Your task to perform on an android device: turn off priority inbox in the gmail app Image 0: 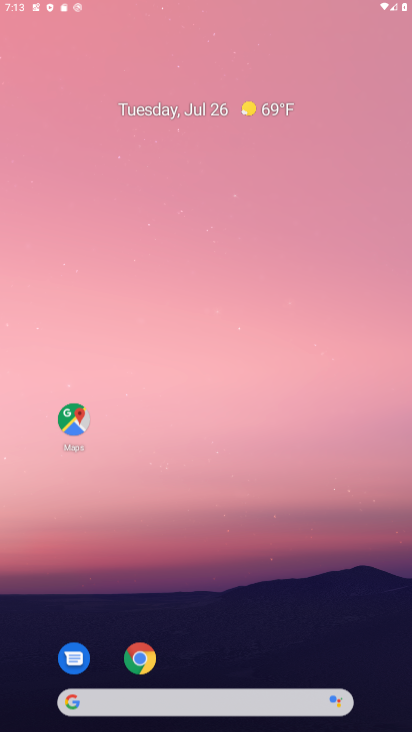
Step 0: press home button
Your task to perform on an android device: turn off priority inbox in the gmail app Image 1: 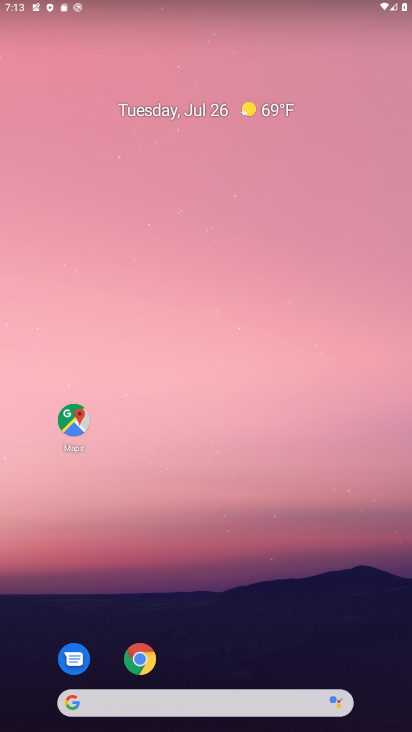
Step 1: drag from (256, 668) to (228, 113)
Your task to perform on an android device: turn off priority inbox in the gmail app Image 2: 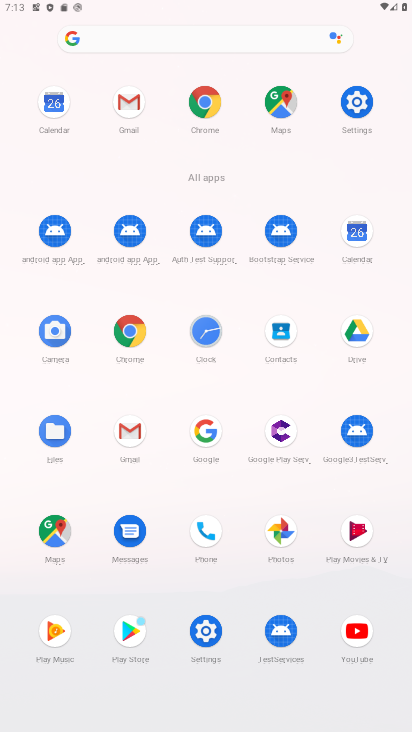
Step 2: click (120, 108)
Your task to perform on an android device: turn off priority inbox in the gmail app Image 3: 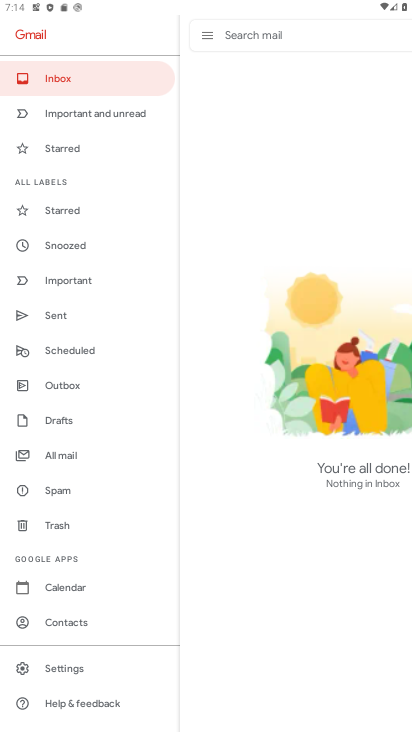
Step 3: click (79, 666)
Your task to perform on an android device: turn off priority inbox in the gmail app Image 4: 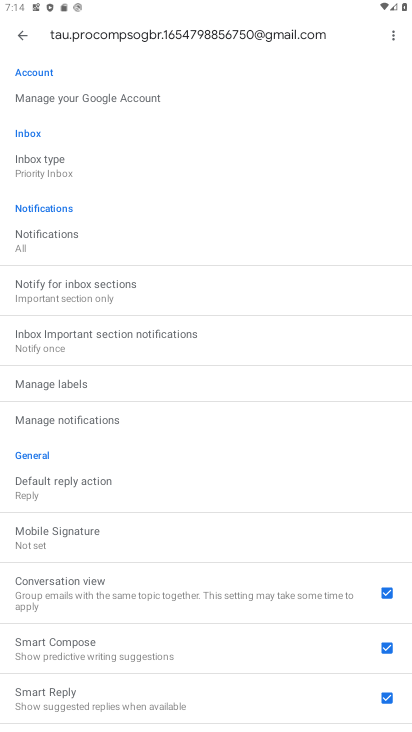
Step 4: click (51, 166)
Your task to perform on an android device: turn off priority inbox in the gmail app Image 5: 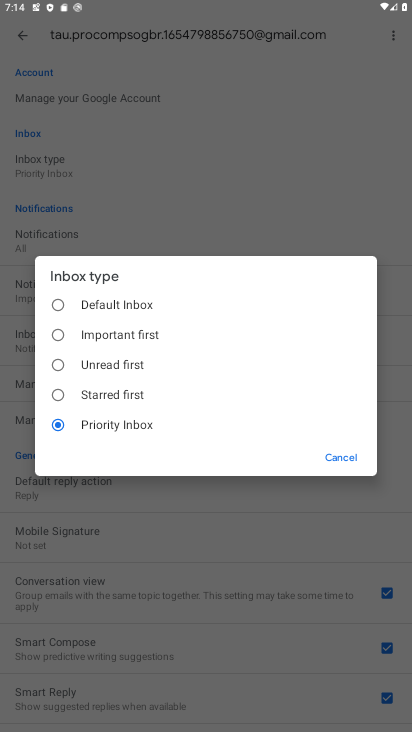
Step 5: click (148, 308)
Your task to perform on an android device: turn off priority inbox in the gmail app Image 6: 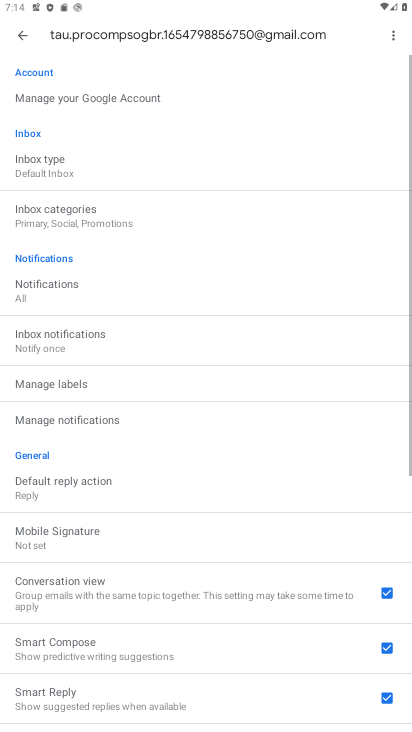
Step 6: task complete